Your task to perform on an android device: visit the assistant section in the google photos Image 0: 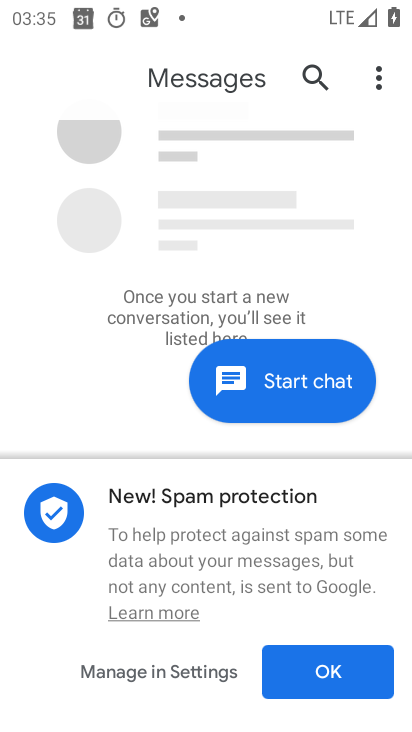
Step 0: press back button
Your task to perform on an android device: visit the assistant section in the google photos Image 1: 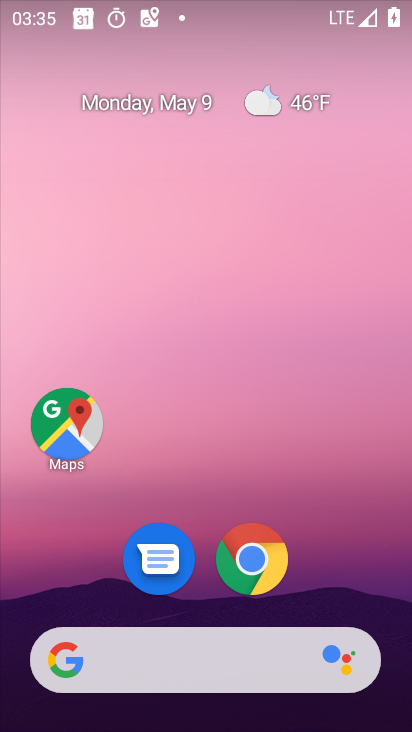
Step 1: drag from (298, 502) to (279, 7)
Your task to perform on an android device: visit the assistant section in the google photos Image 2: 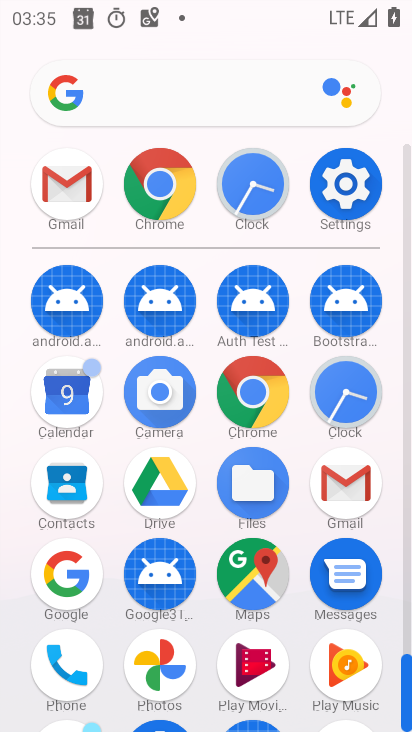
Step 2: click (161, 664)
Your task to perform on an android device: visit the assistant section in the google photos Image 3: 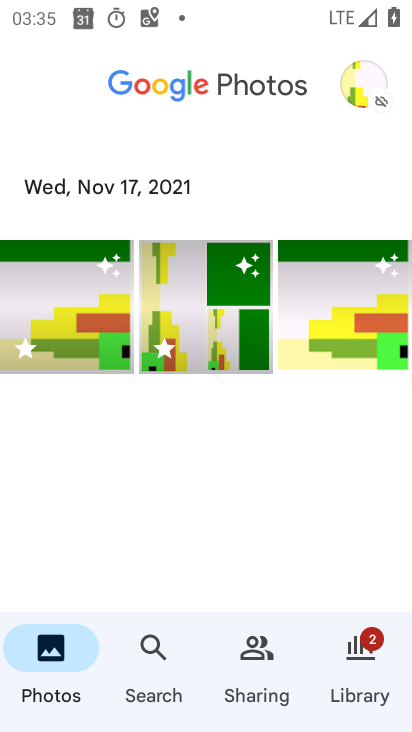
Step 3: click (265, 658)
Your task to perform on an android device: visit the assistant section in the google photos Image 4: 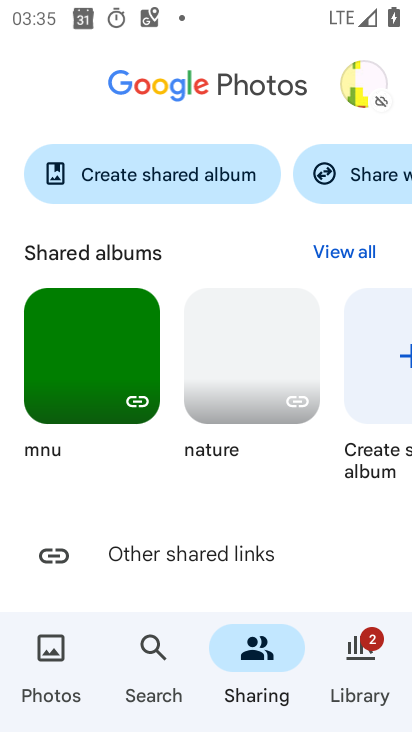
Step 4: drag from (313, 166) to (140, 174)
Your task to perform on an android device: visit the assistant section in the google photos Image 5: 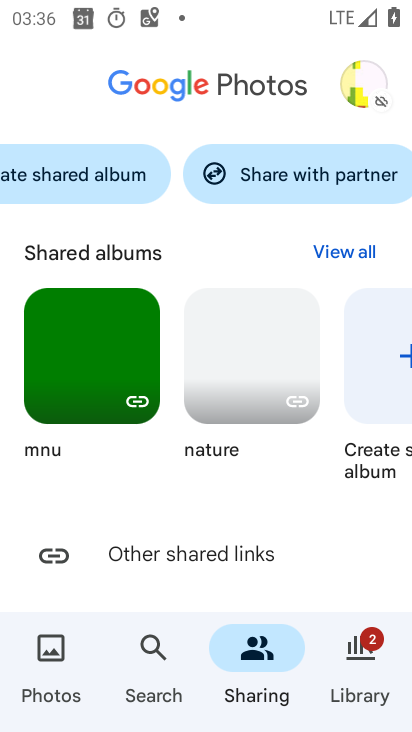
Step 5: click (367, 656)
Your task to perform on an android device: visit the assistant section in the google photos Image 6: 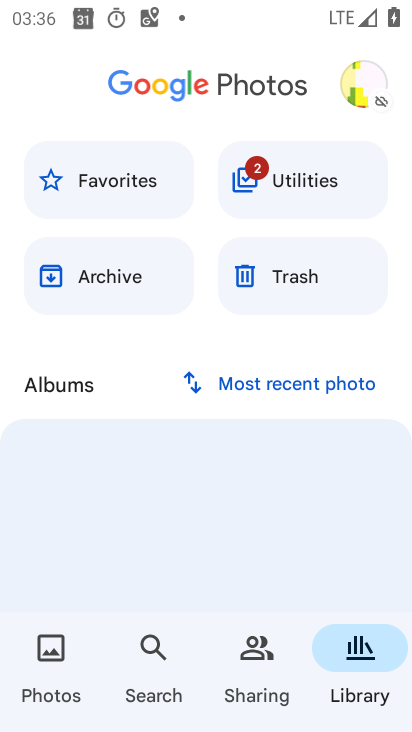
Step 6: click (281, 384)
Your task to perform on an android device: visit the assistant section in the google photos Image 7: 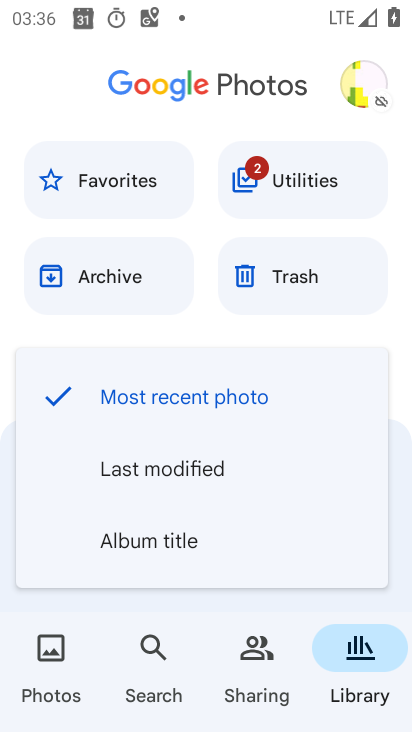
Step 7: click (267, 398)
Your task to perform on an android device: visit the assistant section in the google photos Image 8: 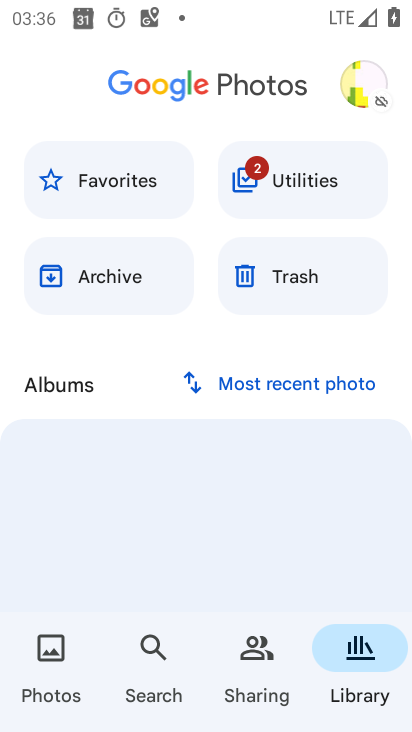
Step 8: drag from (207, 532) to (252, 340)
Your task to perform on an android device: visit the assistant section in the google photos Image 9: 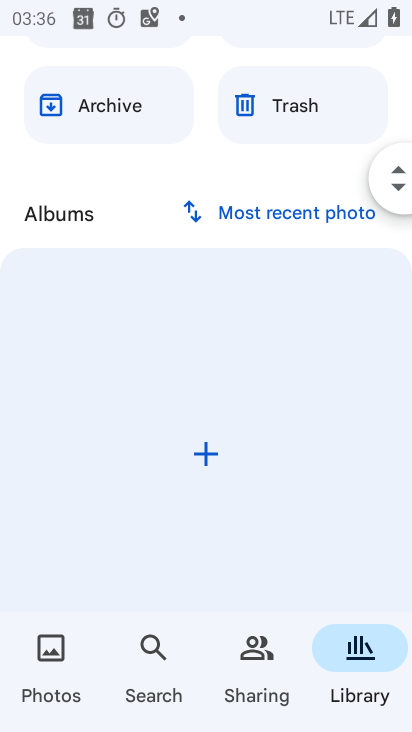
Step 9: click (191, 214)
Your task to perform on an android device: visit the assistant section in the google photos Image 10: 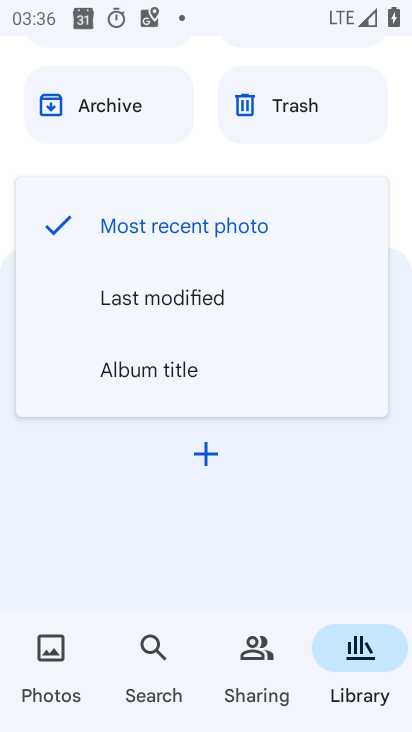
Step 10: click (117, 102)
Your task to perform on an android device: visit the assistant section in the google photos Image 11: 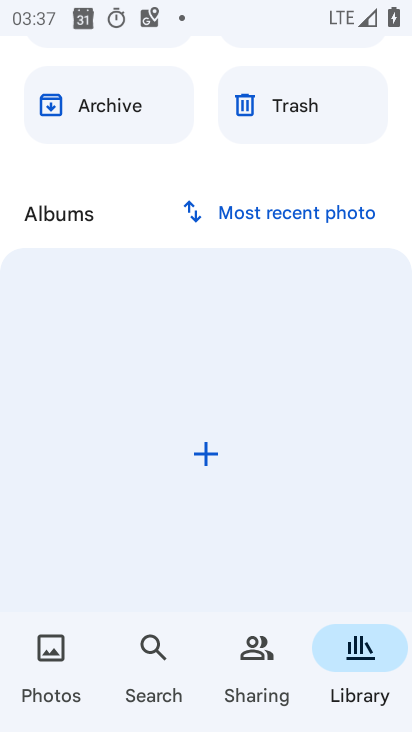
Step 11: drag from (280, 659) to (83, 675)
Your task to perform on an android device: visit the assistant section in the google photos Image 12: 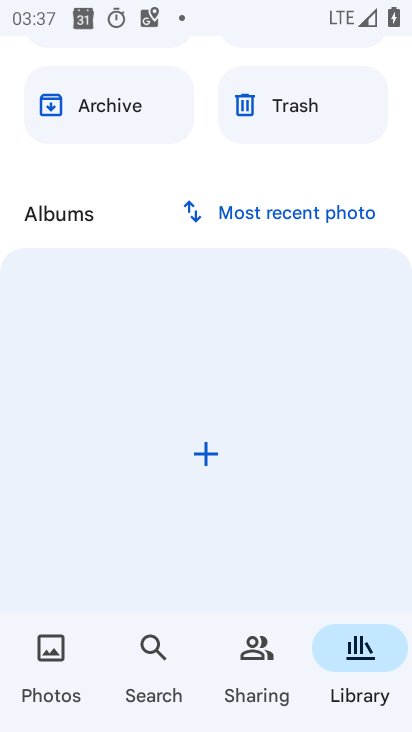
Step 12: drag from (294, 105) to (282, 411)
Your task to perform on an android device: visit the assistant section in the google photos Image 13: 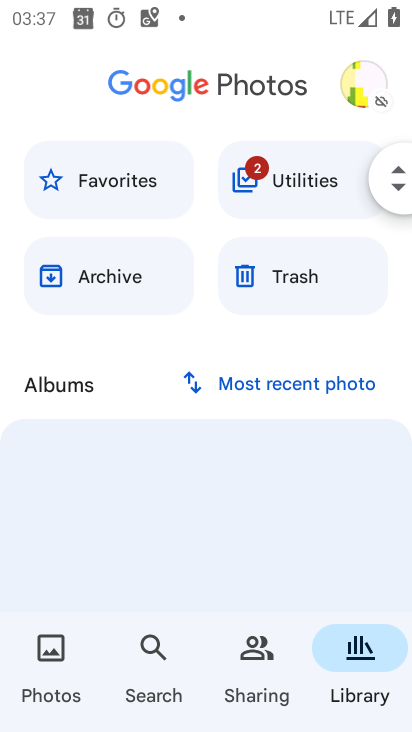
Step 13: click (294, 174)
Your task to perform on an android device: visit the assistant section in the google photos Image 14: 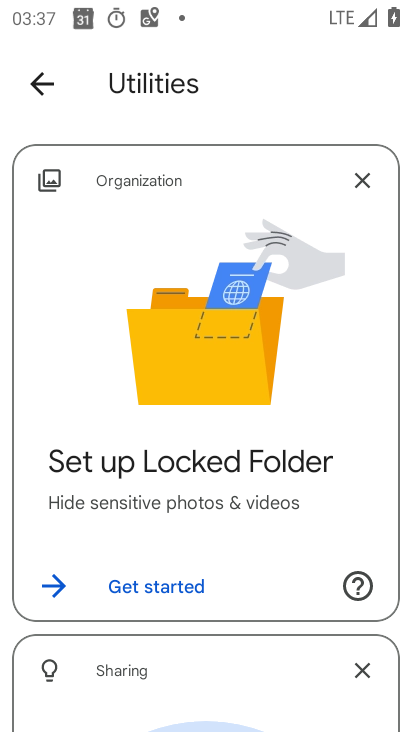
Step 14: task complete